Your task to perform on an android device: turn pop-ups on in chrome Image 0: 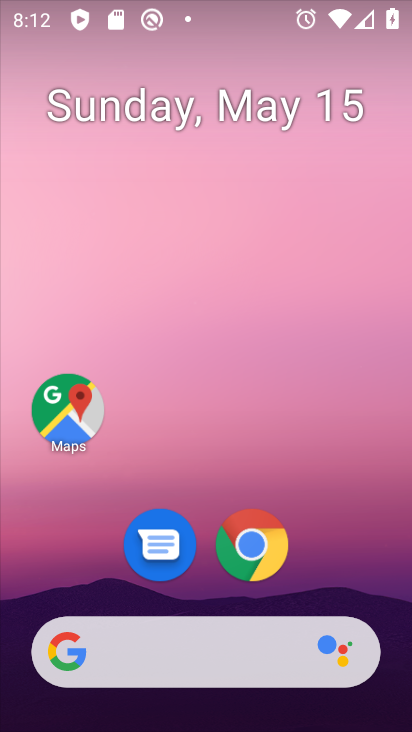
Step 0: drag from (378, 548) to (362, 104)
Your task to perform on an android device: turn pop-ups on in chrome Image 1: 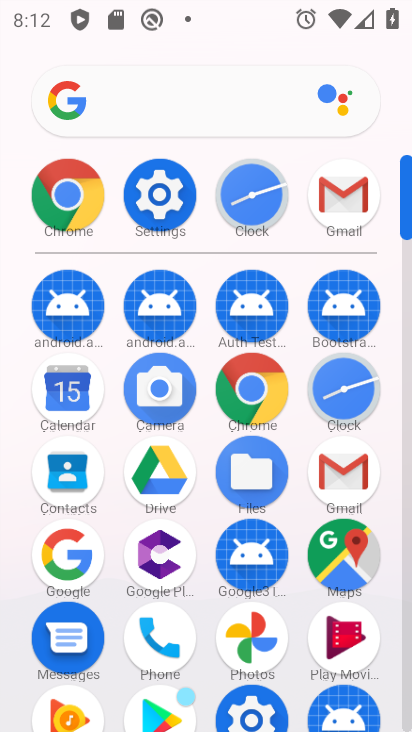
Step 1: click (258, 401)
Your task to perform on an android device: turn pop-ups on in chrome Image 2: 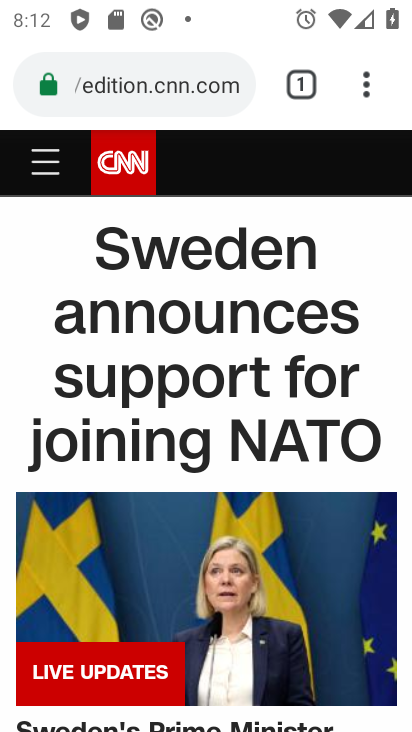
Step 2: click (365, 91)
Your task to perform on an android device: turn pop-ups on in chrome Image 3: 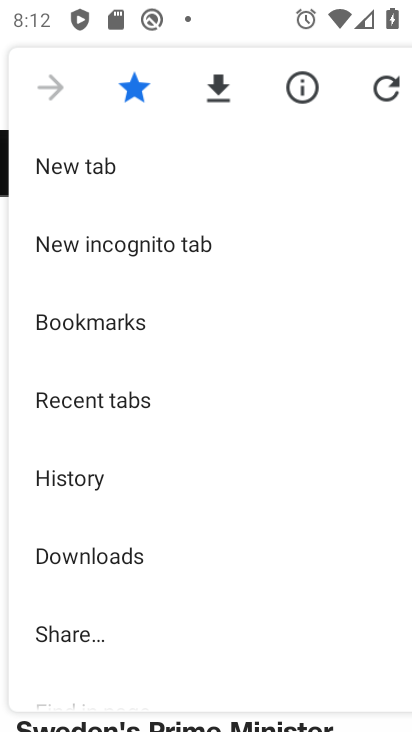
Step 3: drag from (326, 622) to (321, 351)
Your task to perform on an android device: turn pop-ups on in chrome Image 4: 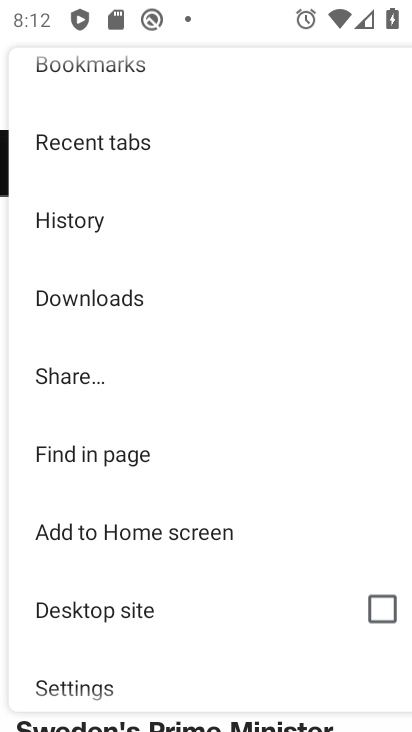
Step 4: drag from (273, 671) to (297, 394)
Your task to perform on an android device: turn pop-ups on in chrome Image 5: 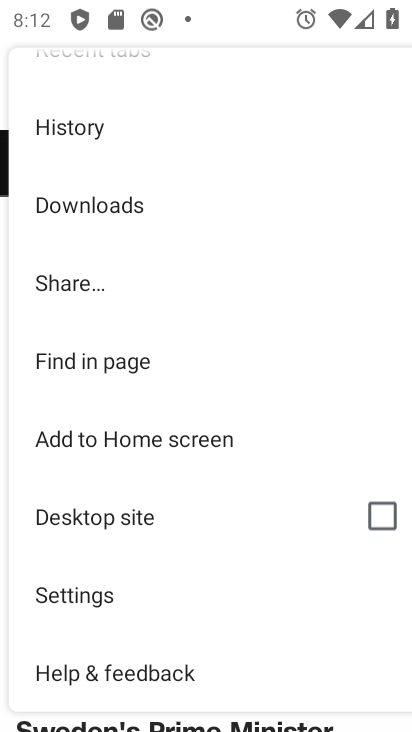
Step 5: drag from (298, 632) to (300, 341)
Your task to perform on an android device: turn pop-ups on in chrome Image 6: 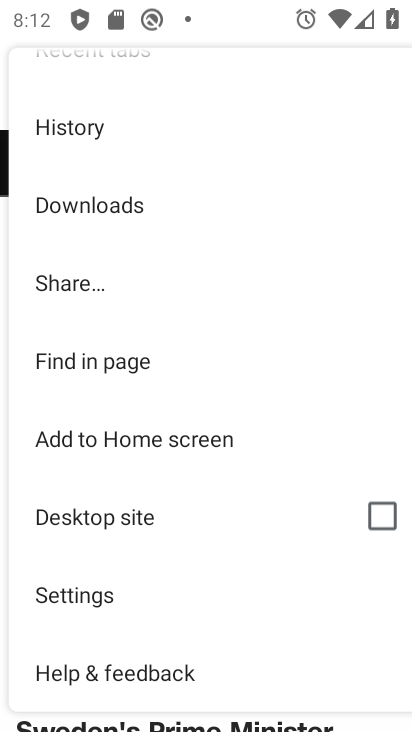
Step 6: drag from (323, 227) to (300, 528)
Your task to perform on an android device: turn pop-ups on in chrome Image 7: 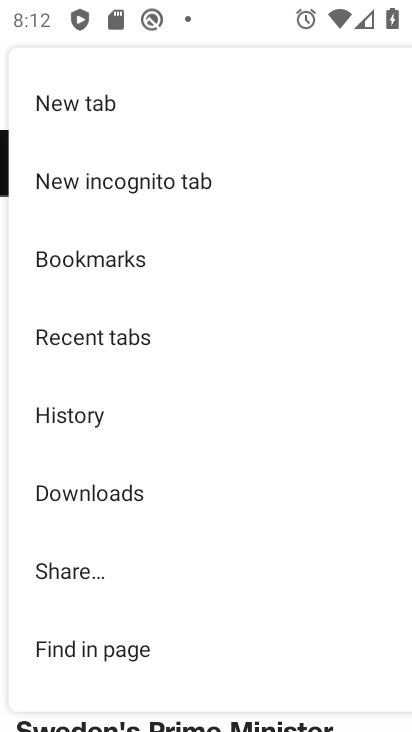
Step 7: drag from (318, 215) to (287, 492)
Your task to perform on an android device: turn pop-ups on in chrome Image 8: 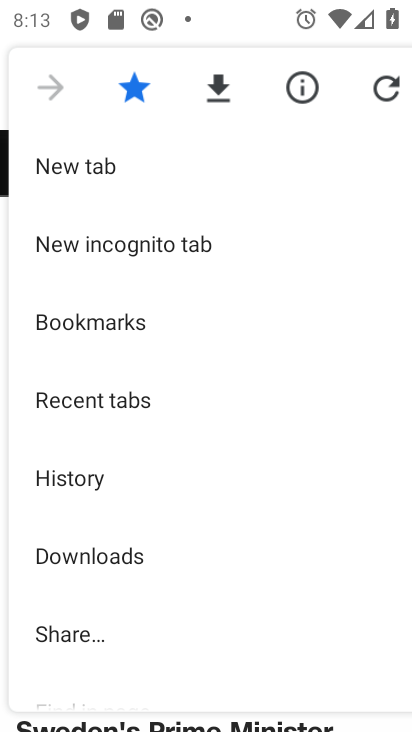
Step 8: drag from (311, 237) to (308, 454)
Your task to perform on an android device: turn pop-ups on in chrome Image 9: 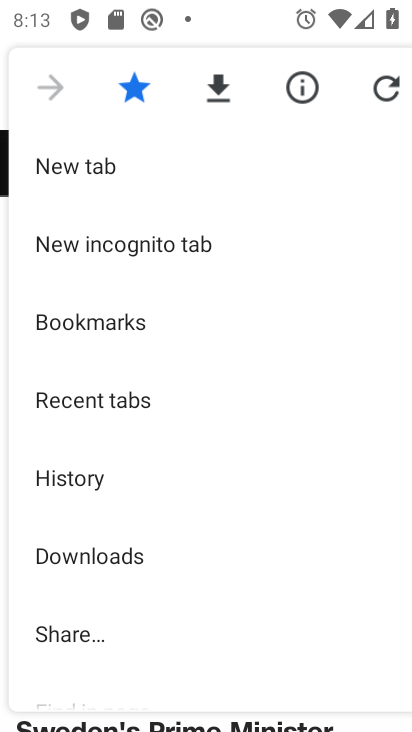
Step 9: drag from (329, 608) to (323, 317)
Your task to perform on an android device: turn pop-ups on in chrome Image 10: 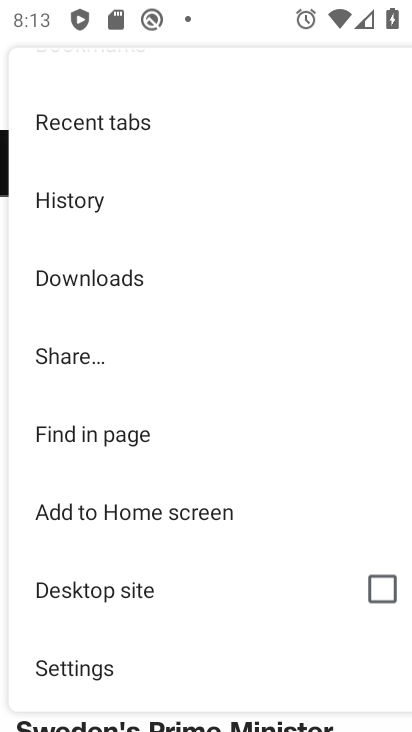
Step 10: drag from (263, 639) to (279, 329)
Your task to perform on an android device: turn pop-ups on in chrome Image 11: 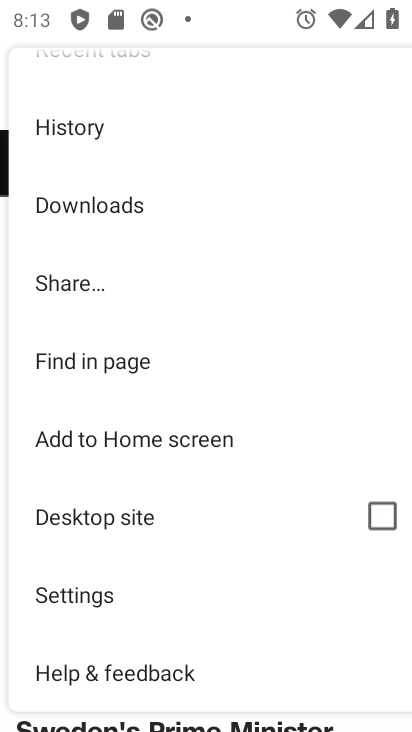
Step 11: click (114, 597)
Your task to perform on an android device: turn pop-ups on in chrome Image 12: 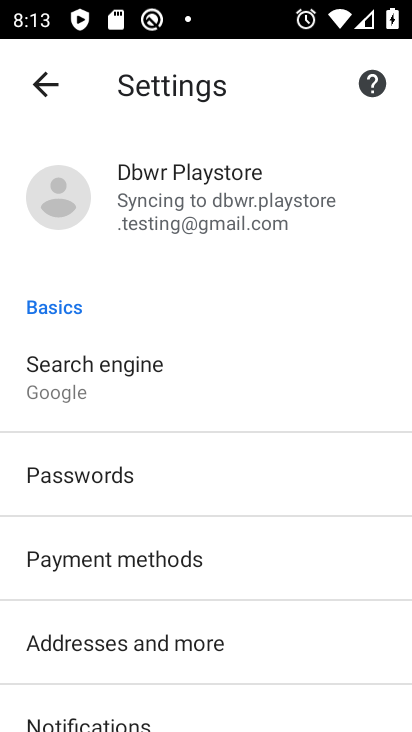
Step 12: drag from (320, 661) to (324, 388)
Your task to perform on an android device: turn pop-ups on in chrome Image 13: 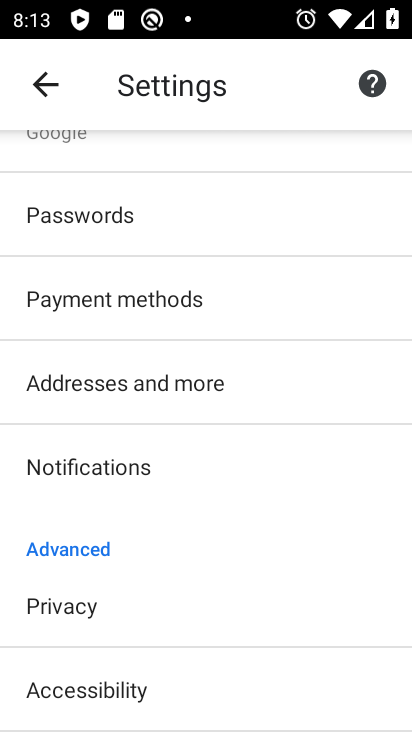
Step 13: drag from (300, 665) to (313, 361)
Your task to perform on an android device: turn pop-ups on in chrome Image 14: 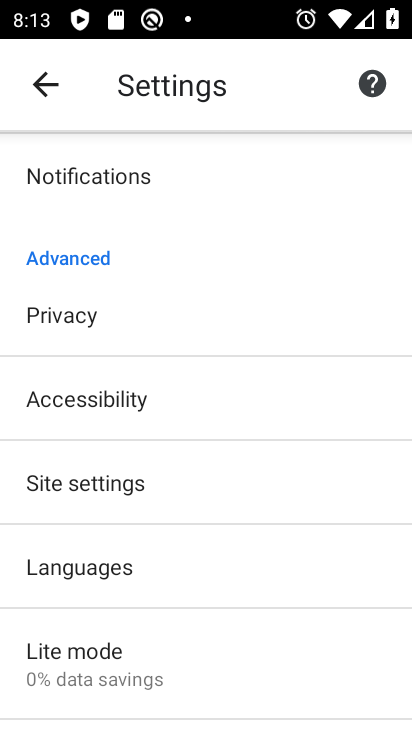
Step 14: drag from (290, 650) to (294, 333)
Your task to perform on an android device: turn pop-ups on in chrome Image 15: 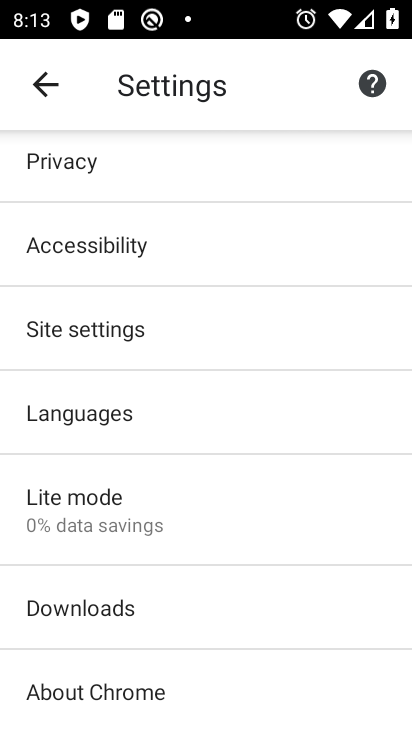
Step 15: drag from (281, 612) to (280, 416)
Your task to perform on an android device: turn pop-ups on in chrome Image 16: 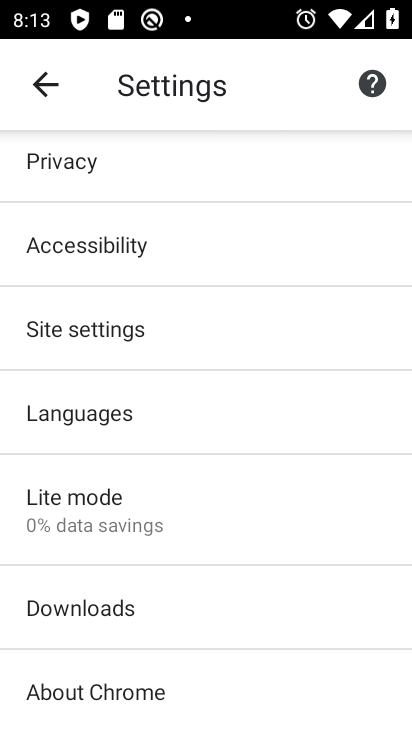
Step 16: click (147, 332)
Your task to perform on an android device: turn pop-ups on in chrome Image 17: 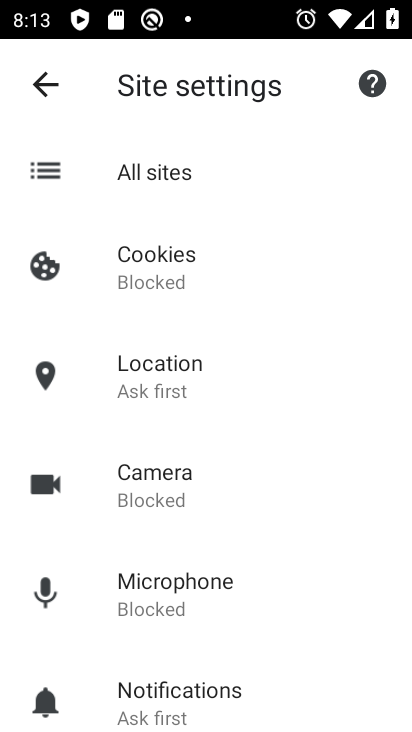
Step 17: drag from (324, 634) to (322, 376)
Your task to perform on an android device: turn pop-ups on in chrome Image 18: 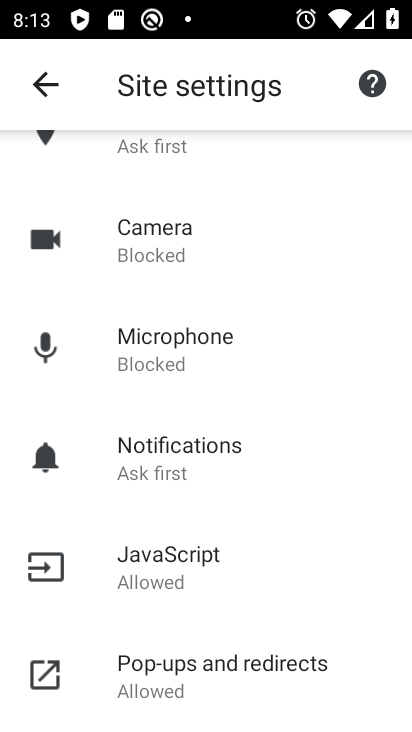
Step 18: drag from (331, 695) to (327, 493)
Your task to perform on an android device: turn pop-ups on in chrome Image 19: 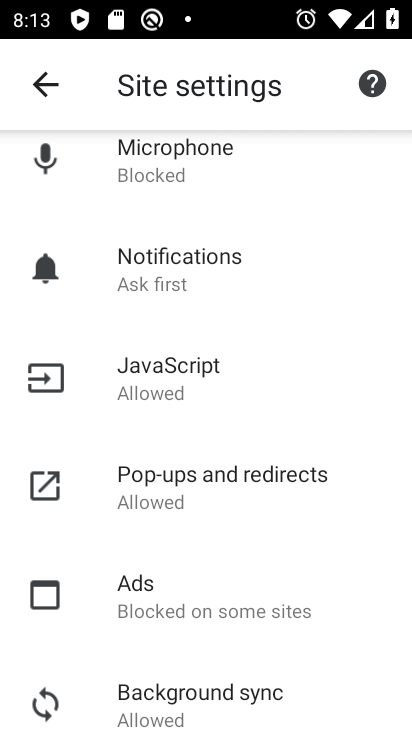
Step 19: click (233, 469)
Your task to perform on an android device: turn pop-ups on in chrome Image 20: 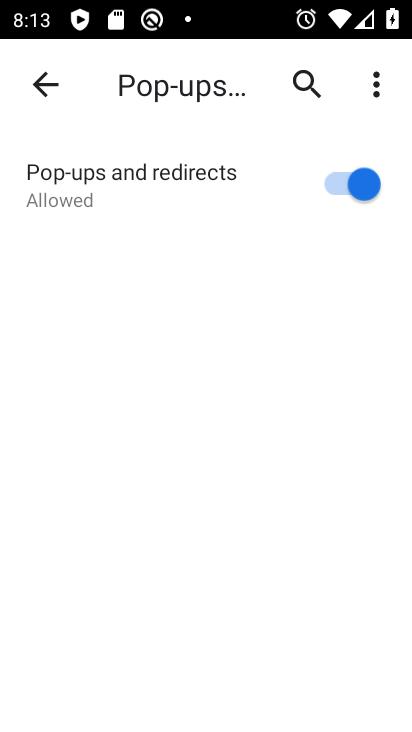
Step 20: task complete